Your task to perform on an android device: toggle sleep mode Image 0: 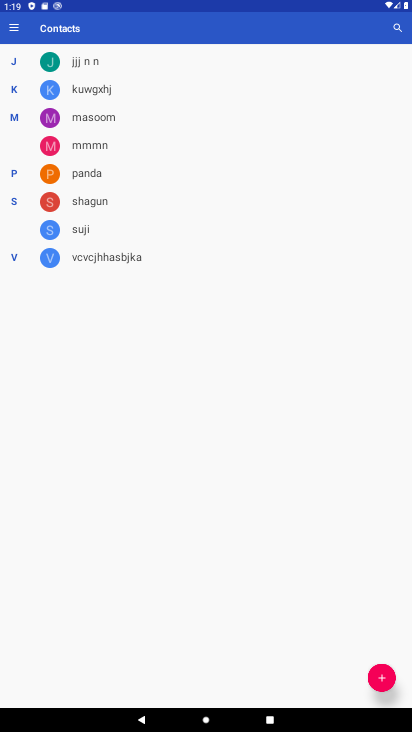
Step 0: press home button
Your task to perform on an android device: toggle sleep mode Image 1: 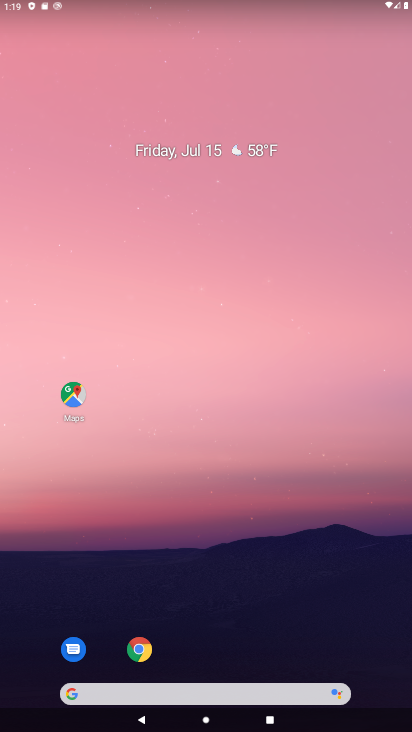
Step 1: drag from (198, 689) to (223, 67)
Your task to perform on an android device: toggle sleep mode Image 2: 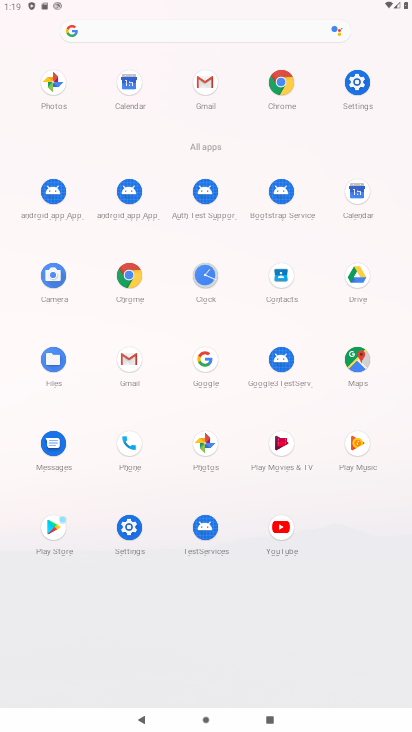
Step 2: click (367, 82)
Your task to perform on an android device: toggle sleep mode Image 3: 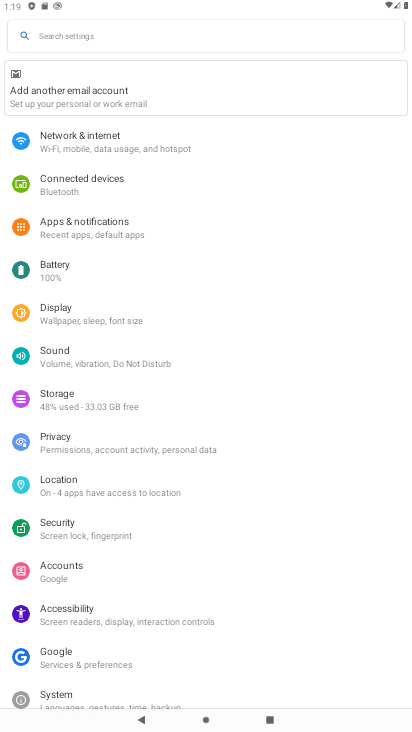
Step 3: click (96, 319)
Your task to perform on an android device: toggle sleep mode Image 4: 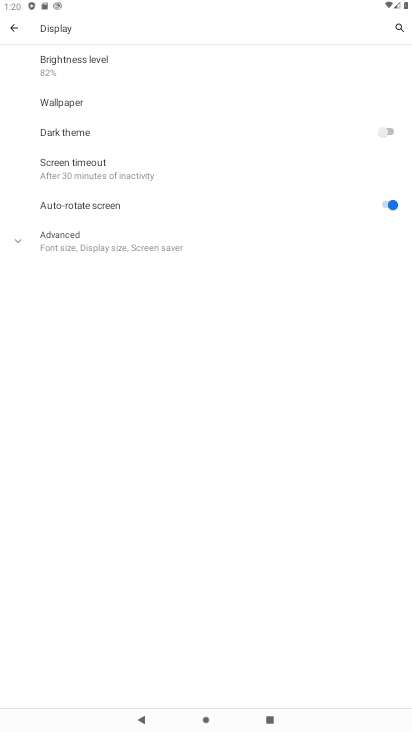
Step 4: task complete